Your task to perform on an android device: turn pop-ups off in chrome Image 0: 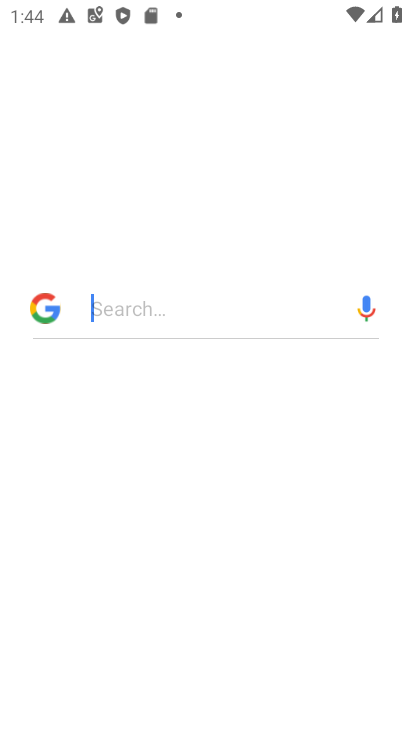
Step 0: drag from (325, 562) to (365, 295)
Your task to perform on an android device: turn pop-ups off in chrome Image 1: 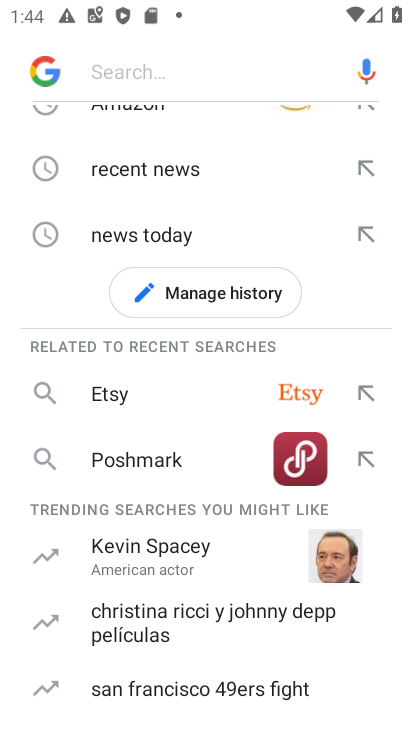
Step 1: press home button
Your task to perform on an android device: turn pop-ups off in chrome Image 2: 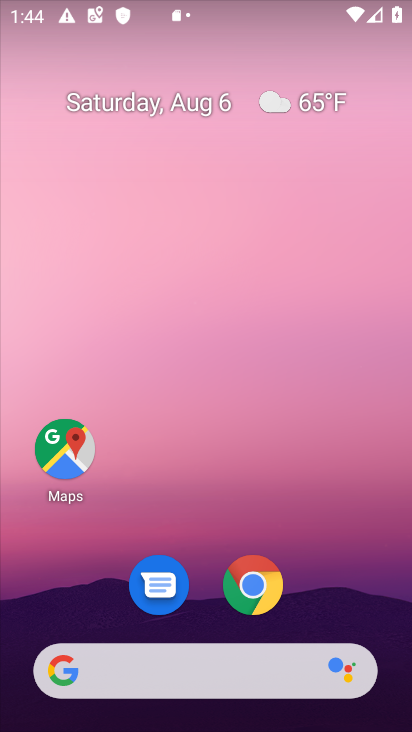
Step 2: click (261, 564)
Your task to perform on an android device: turn pop-ups off in chrome Image 3: 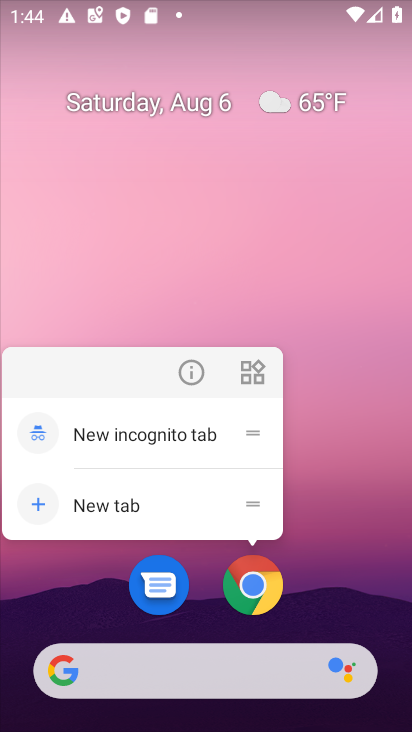
Step 3: click (261, 587)
Your task to perform on an android device: turn pop-ups off in chrome Image 4: 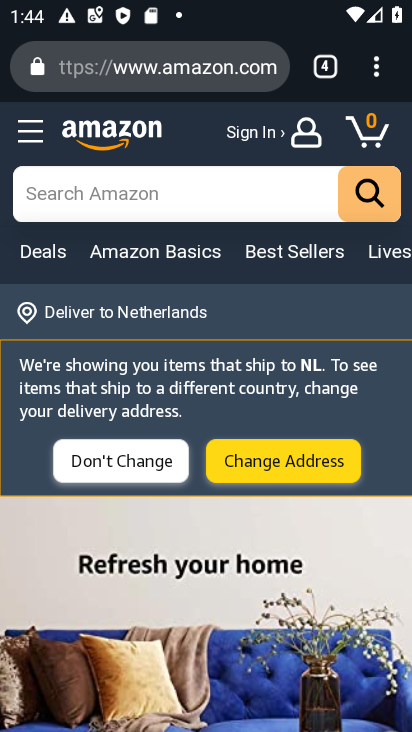
Step 4: click (376, 62)
Your task to perform on an android device: turn pop-ups off in chrome Image 5: 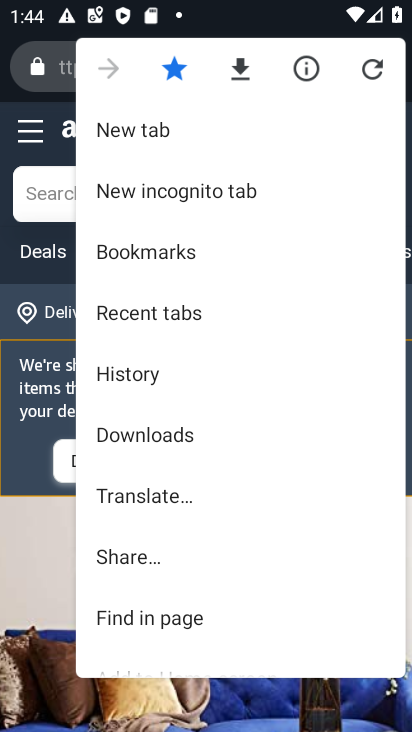
Step 5: drag from (279, 493) to (259, 195)
Your task to perform on an android device: turn pop-ups off in chrome Image 6: 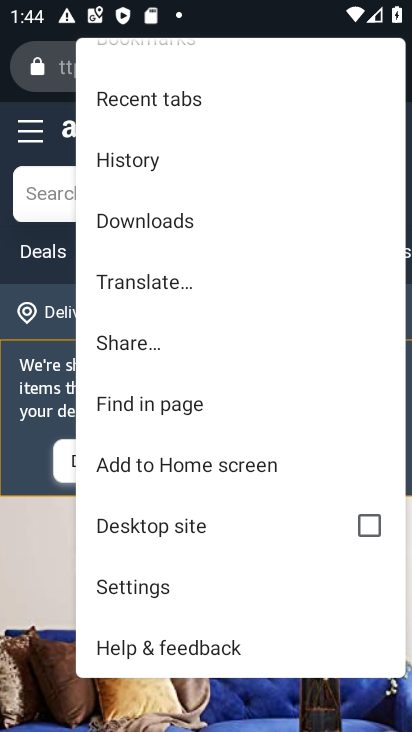
Step 6: click (149, 582)
Your task to perform on an android device: turn pop-ups off in chrome Image 7: 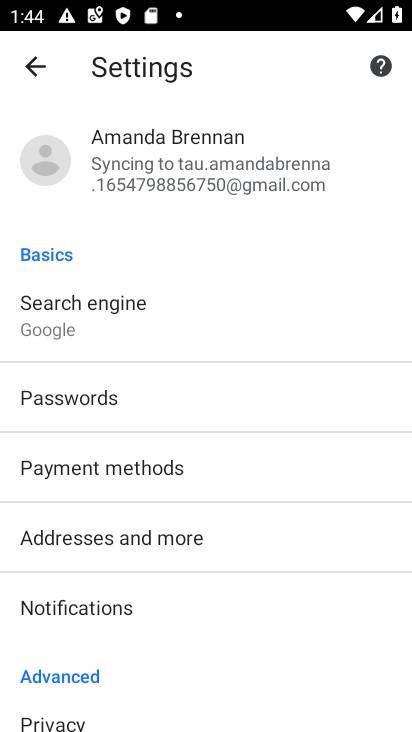
Step 7: drag from (265, 629) to (274, 30)
Your task to perform on an android device: turn pop-ups off in chrome Image 8: 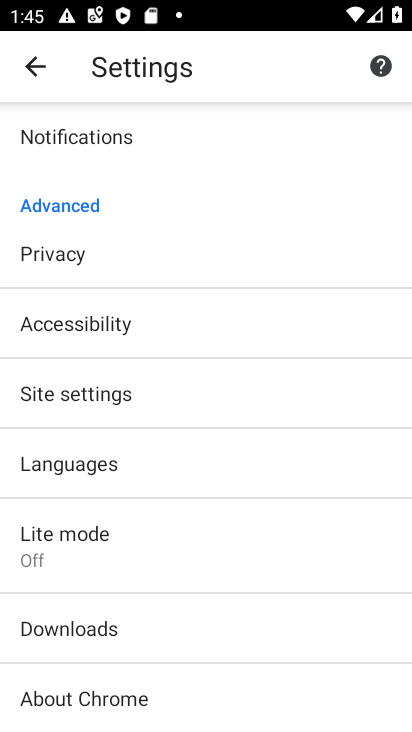
Step 8: click (108, 392)
Your task to perform on an android device: turn pop-ups off in chrome Image 9: 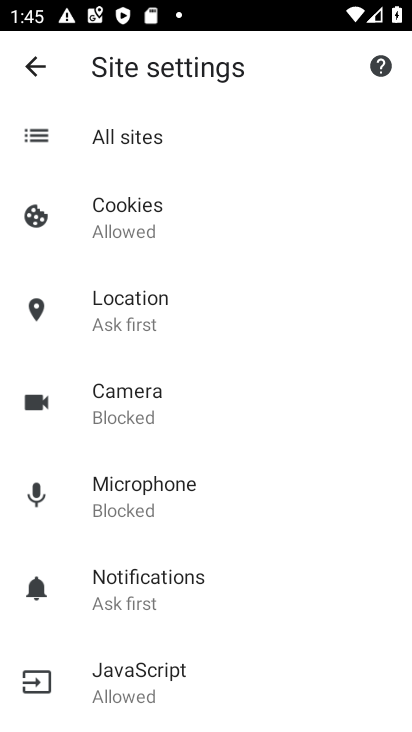
Step 9: drag from (239, 593) to (270, 145)
Your task to perform on an android device: turn pop-ups off in chrome Image 10: 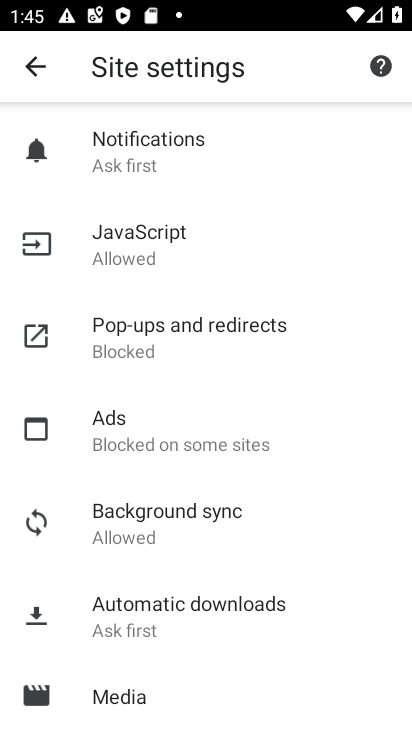
Step 10: click (236, 326)
Your task to perform on an android device: turn pop-ups off in chrome Image 11: 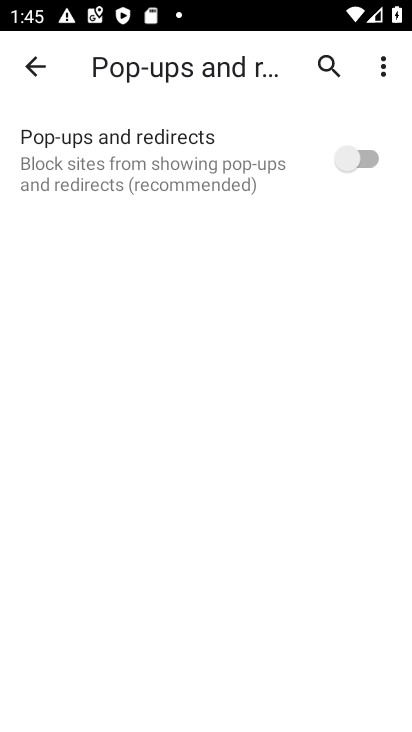
Step 11: task complete